Your task to perform on an android device: Go to Google Image 0: 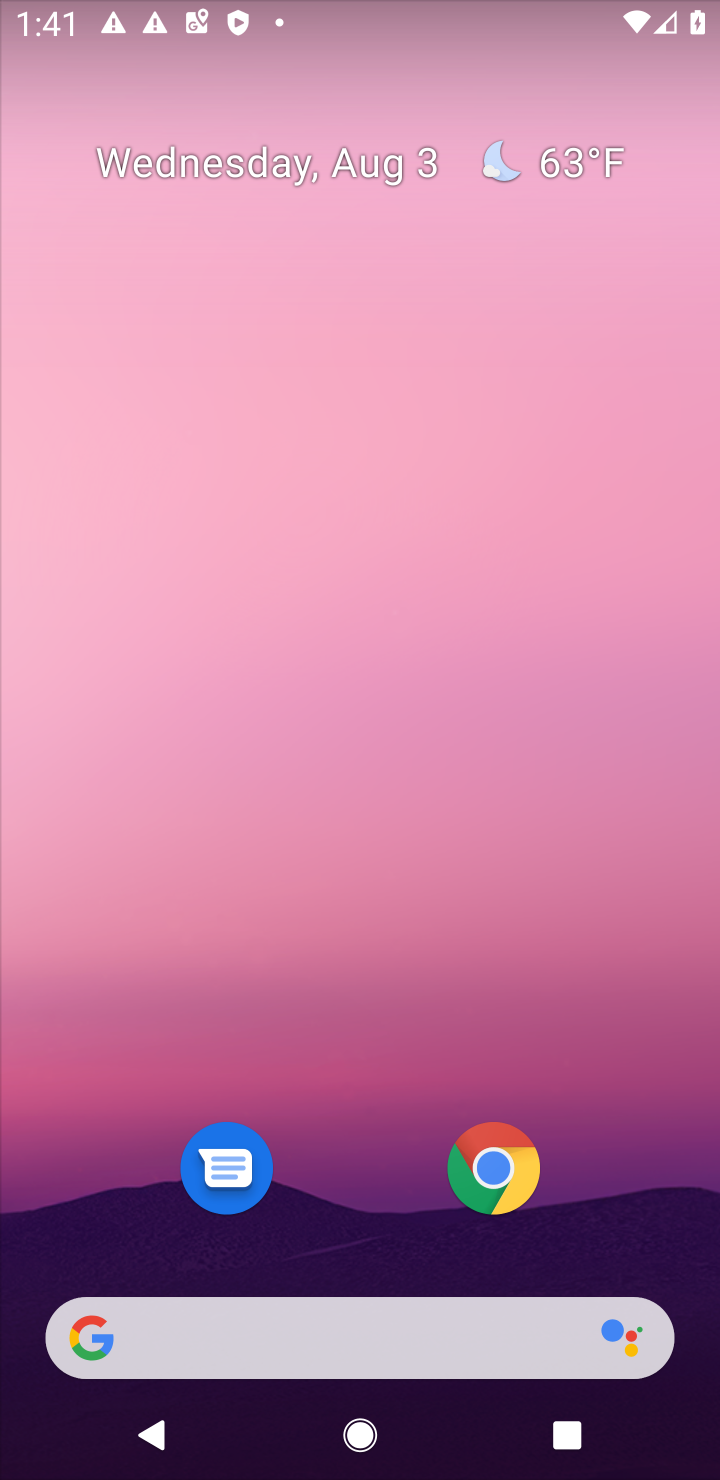
Step 0: click (496, 1179)
Your task to perform on an android device: Go to Google Image 1: 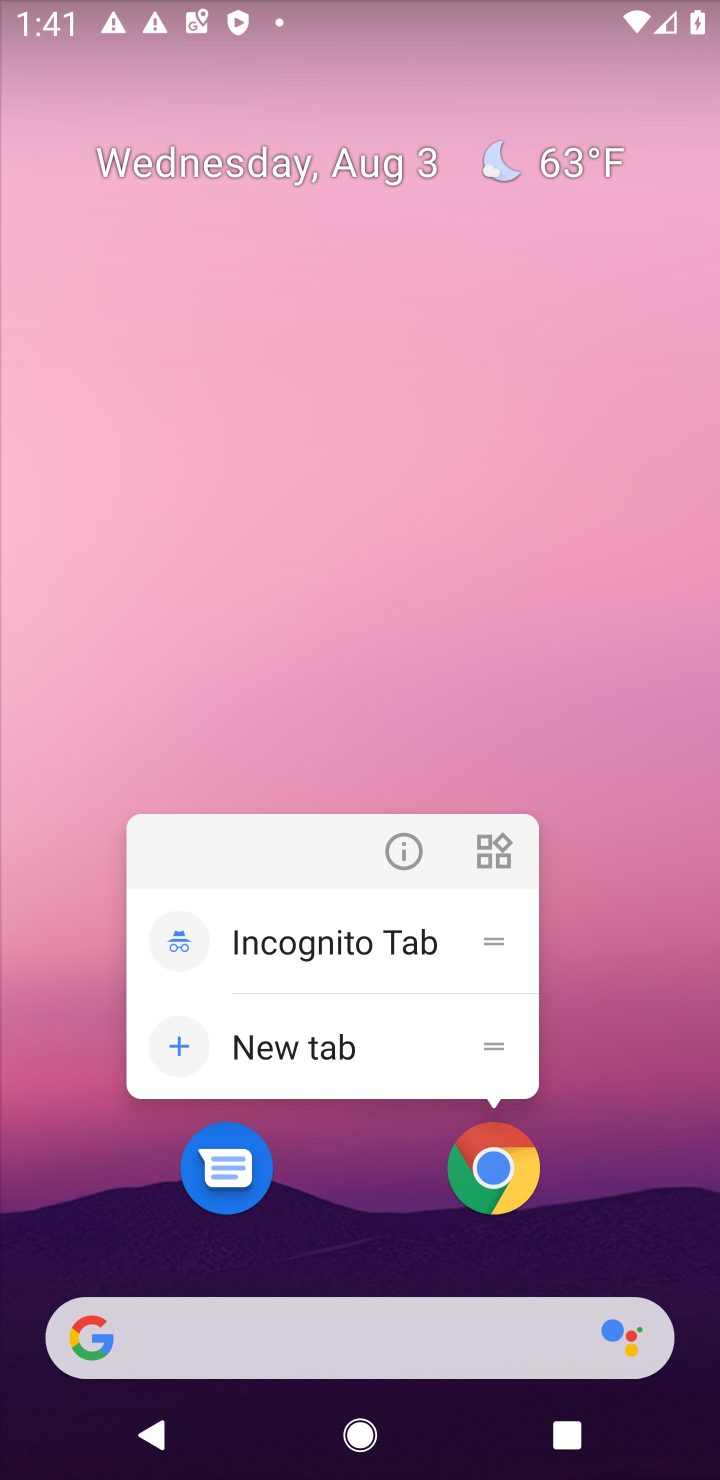
Step 1: click (492, 1172)
Your task to perform on an android device: Go to Google Image 2: 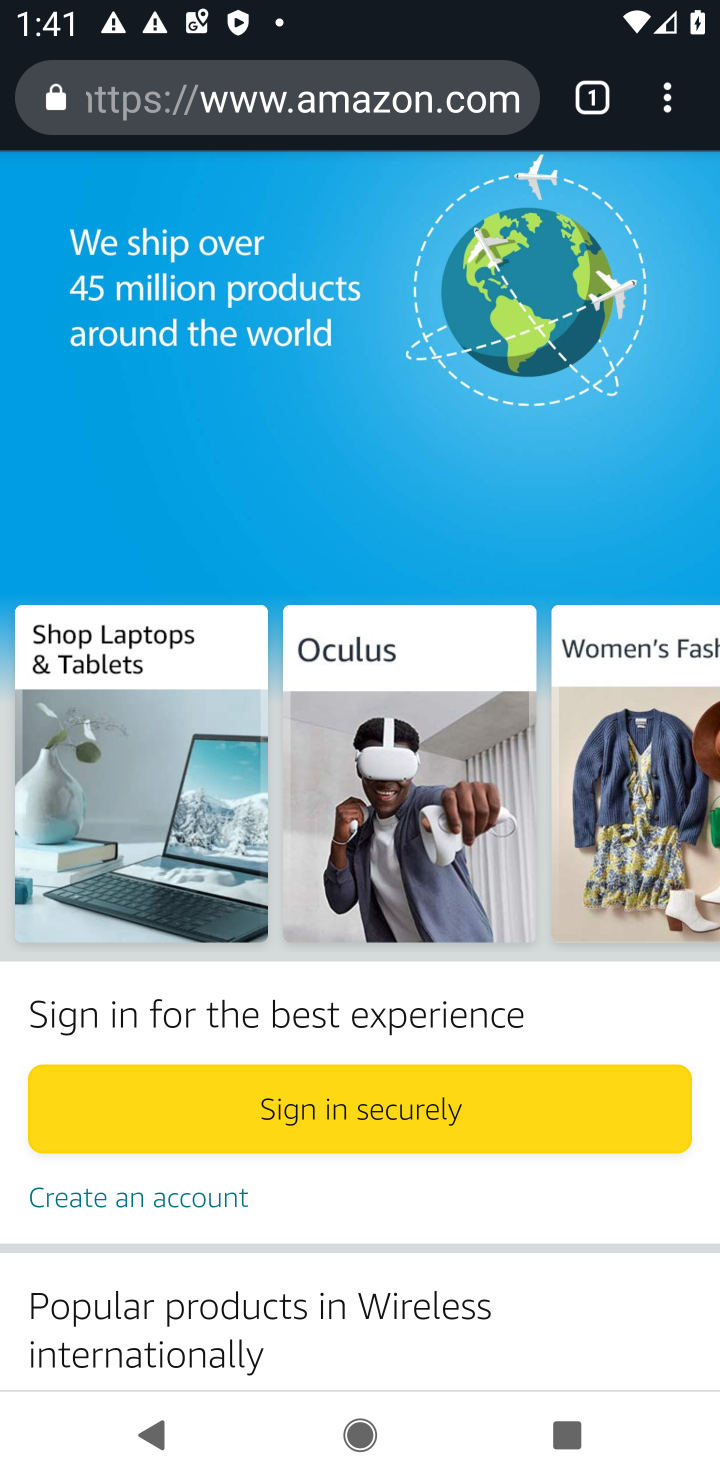
Step 2: task complete